Your task to perform on an android device: turn on javascript in the chrome app Image 0: 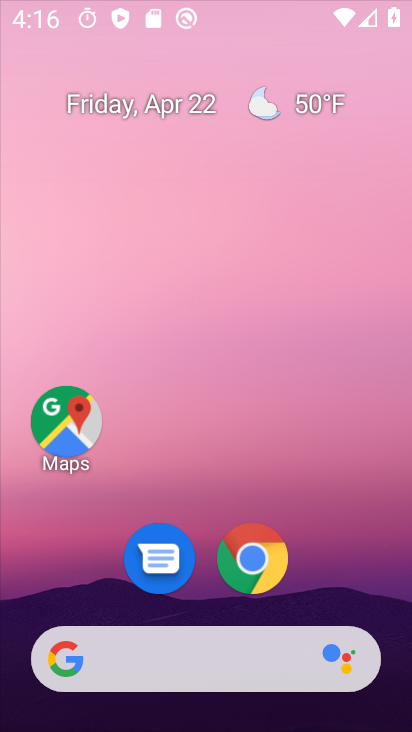
Step 0: drag from (311, 563) to (243, 168)
Your task to perform on an android device: turn on javascript in the chrome app Image 1: 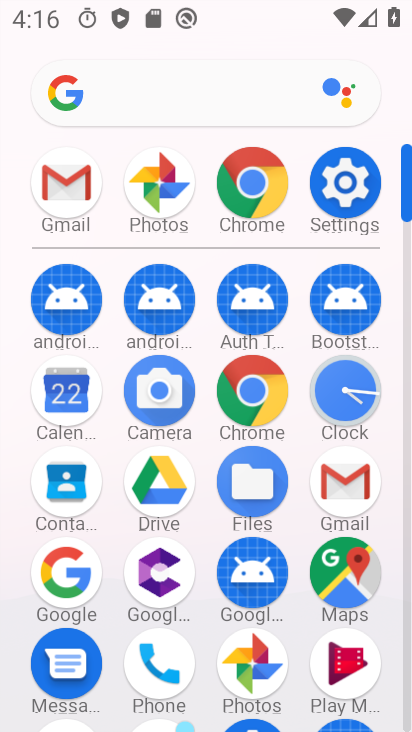
Step 1: drag from (288, 635) to (340, 191)
Your task to perform on an android device: turn on javascript in the chrome app Image 2: 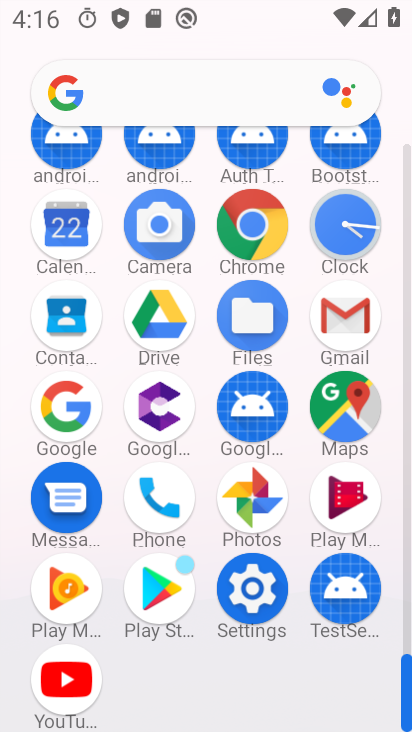
Step 2: click (259, 248)
Your task to perform on an android device: turn on javascript in the chrome app Image 3: 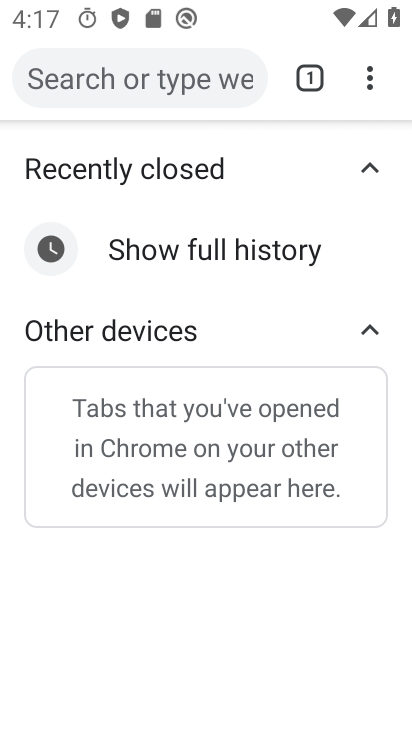
Step 3: click (374, 84)
Your task to perform on an android device: turn on javascript in the chrome app Image 4: 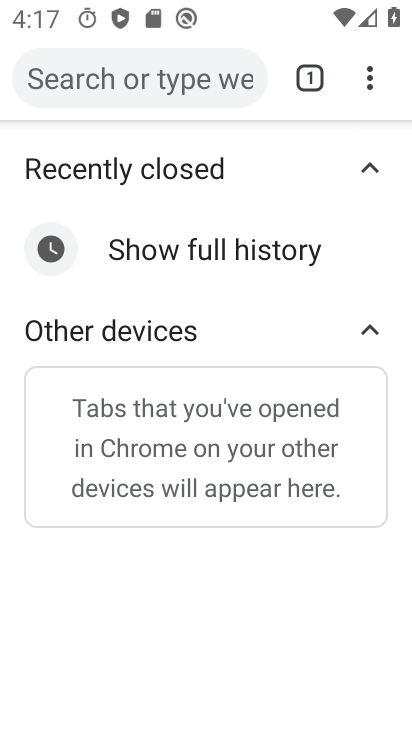
Step 4: click (368, 82)
Your task to perform on an android device: turn on javascript in the chrome app Image 5: 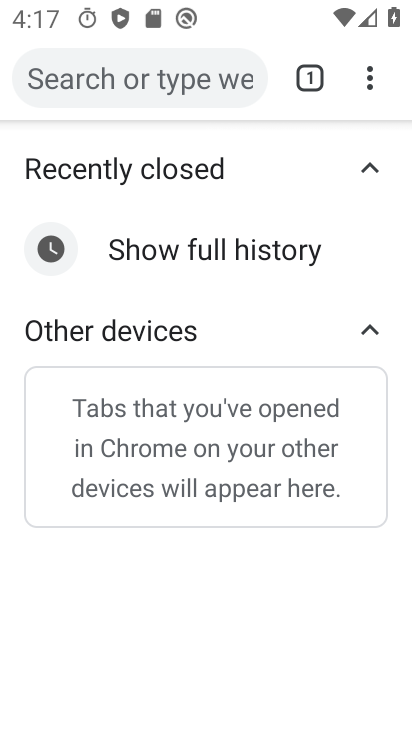
Step 5: click (370, 77)
Your task to perform on an android device: turn on javascript in the chrome app Image 6: 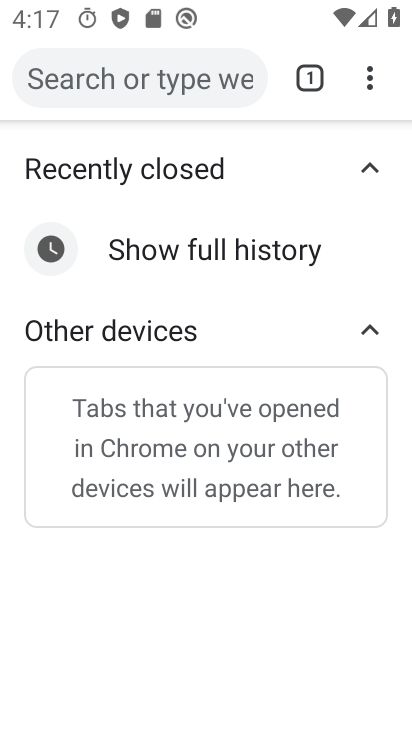
Step 6: click (369, 79)
Your task to perform on an android device: turn on javascript in the chrome app Image 7: 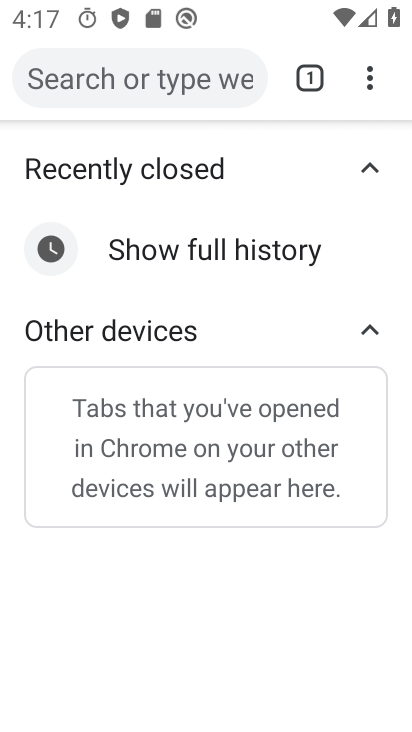
Step 7: click (372, 81)
Your task to perform on an android device: turn on javascript in the chrome app Image 8: 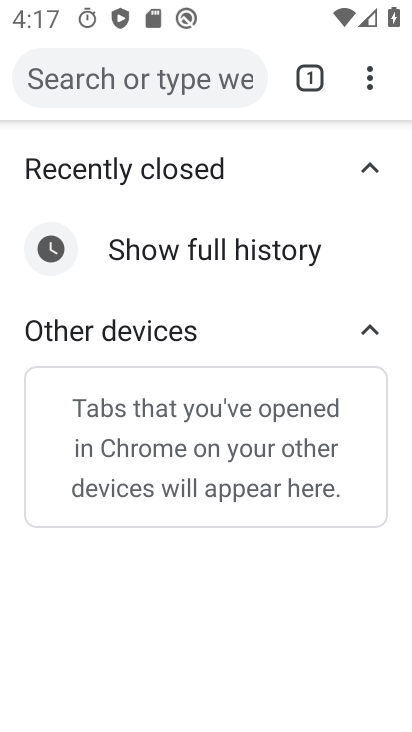
Step 8: click (374, 83)
Your task to perform on an android device: turn on javascript in the chrome app Image 9: 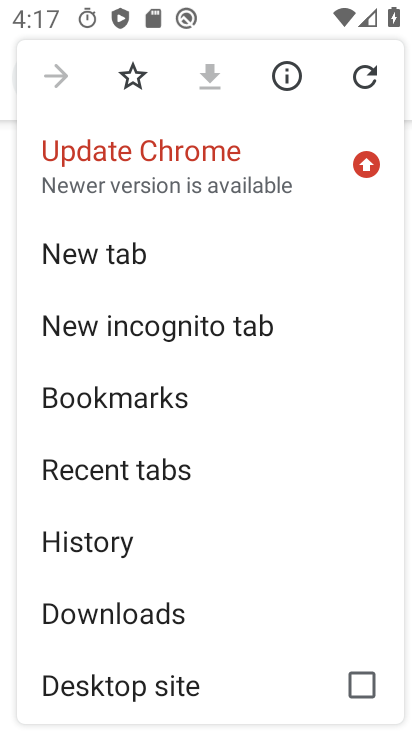
Step 9: drag from (213, 595) to (192, 287)
Your task to perform on an android device: turn on javascript in the chrome app Image 10: 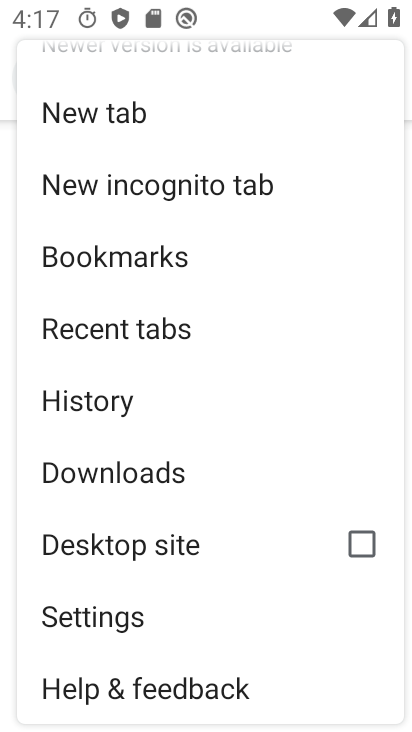
Step 10: click (124, 613)
Your task to perform on an android device: turn on javascript in the chrome app Image 11: 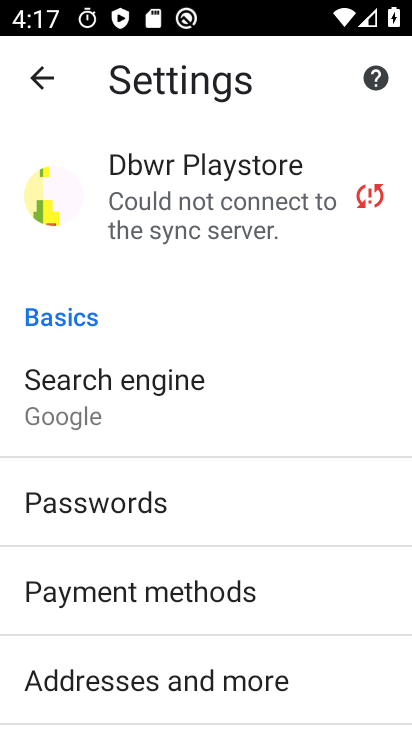
Step 11: drag from (231, 648) to (242, 363)
Your task to perform on an android device: turn on javascript in the chrome app Image 12: 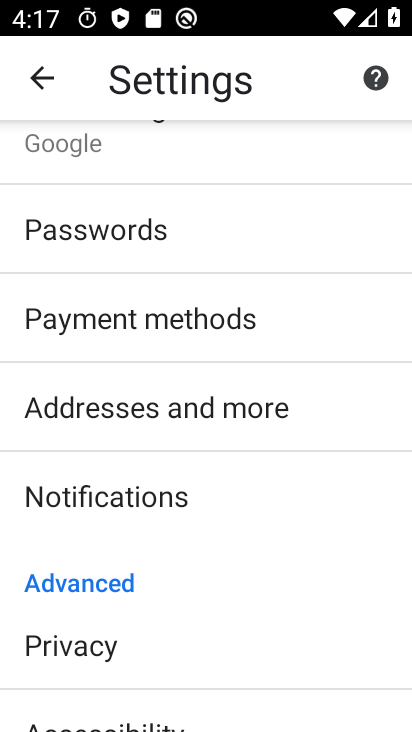
Step 12: drag from (199, 599) to (213, 355)
Your task to perform on an android device: turn on javascript in the chrome app Image 13: 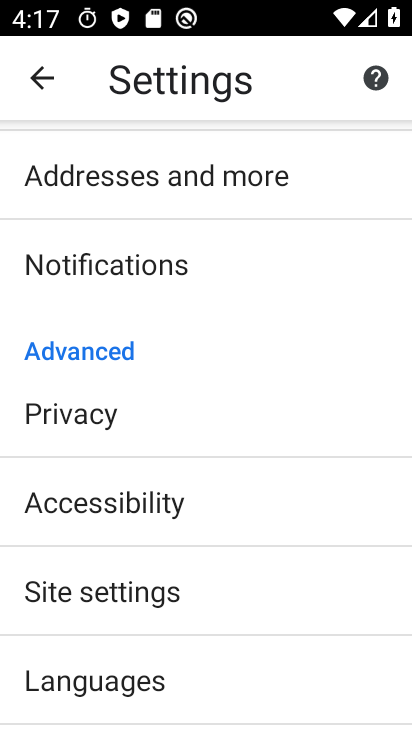
Step 13: drag from (208, 683) to (204, 421)
Your task to perform on an android device: turn on javascript in the chrome app Image 14: 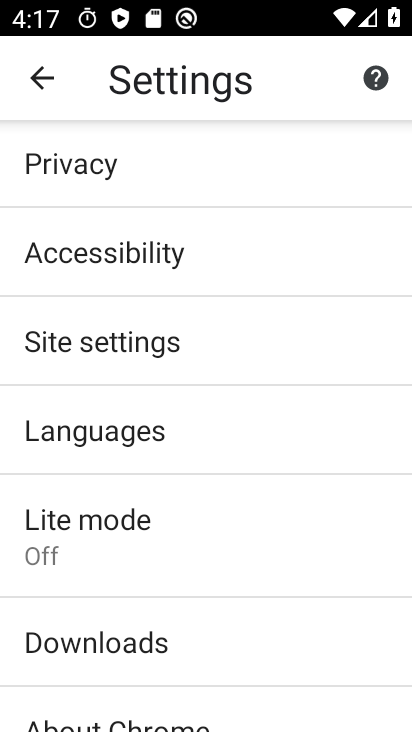
Step 14: click (86, 351)
Your task to perform on an android device: turn on javascript in the chrome app Image 15: 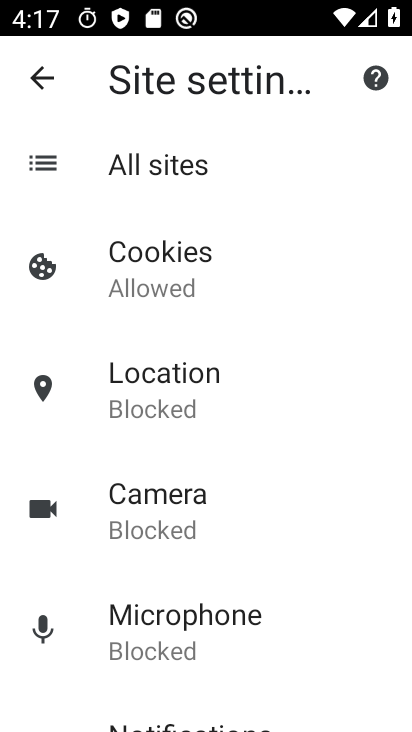
Step 15: drag from (223, 654) to (249, 315)
Your task to perform on an android device: turn on javascript in the chrome app Image 16: 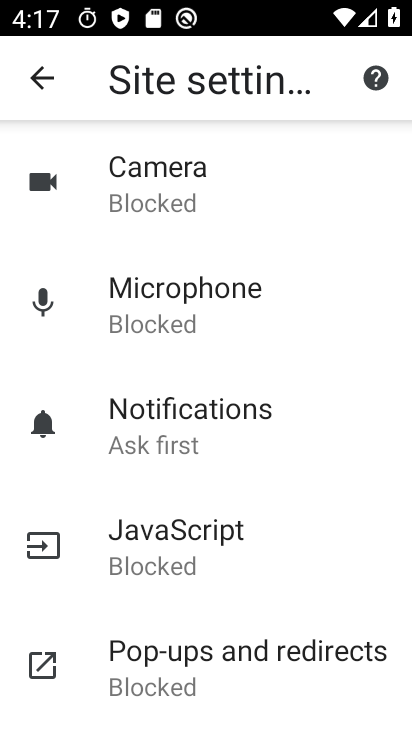
Step 16: drag from (196, 598) to (240, 321)
Your task to perform on an android device: turn on javascript in the chrome app Image 17: 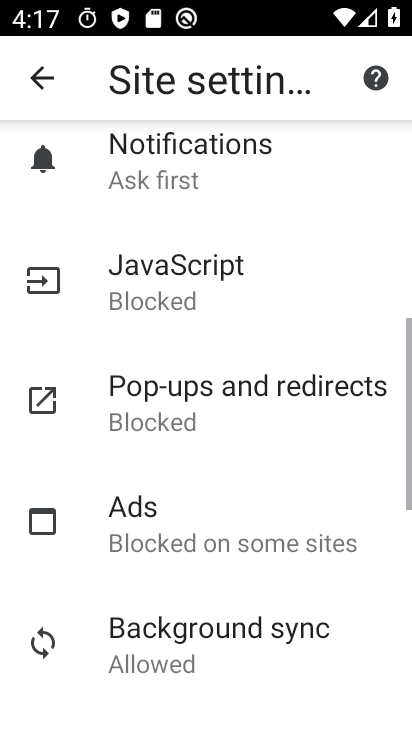
Step 17: drag from (200, 604) to (253, 262)
Your task to perform on an android device: turn on javascript in the chrome app Image 18: 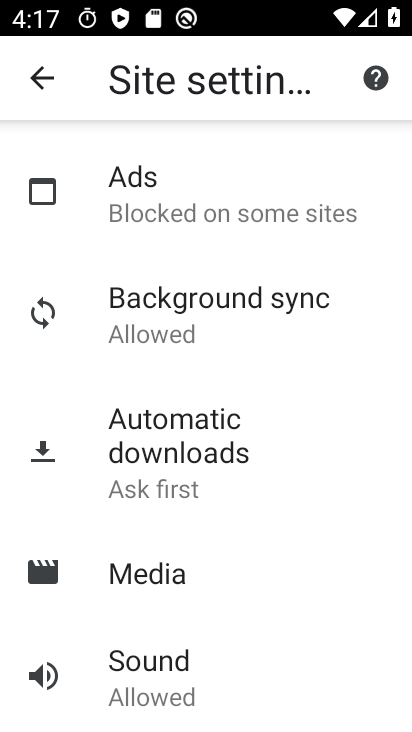
Step 18: drag from (158, 622) to (245, 301)
Your task to perform on an android device: turn on javascript in the chrome app Image 19: 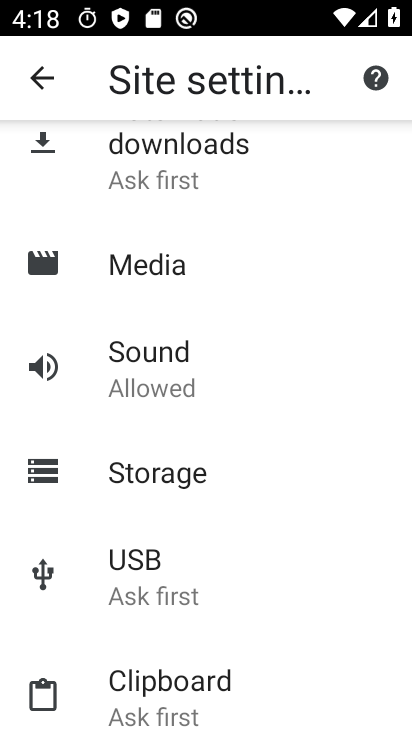
Step 19: drag from (257, 236) to (190, 728)
Your task to perform on an android device: turn on javascript in the chrome app Image 20: 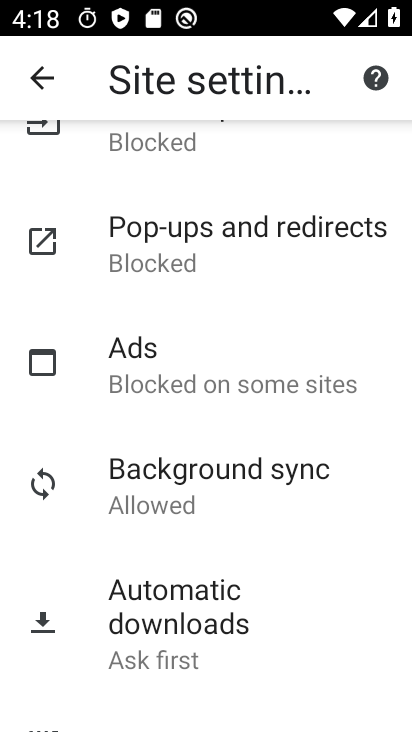
Step 20: drag from (221, 366) to (158, 645)
Your task to perform on an android device: turn on javascript in the chrome app Image 21: 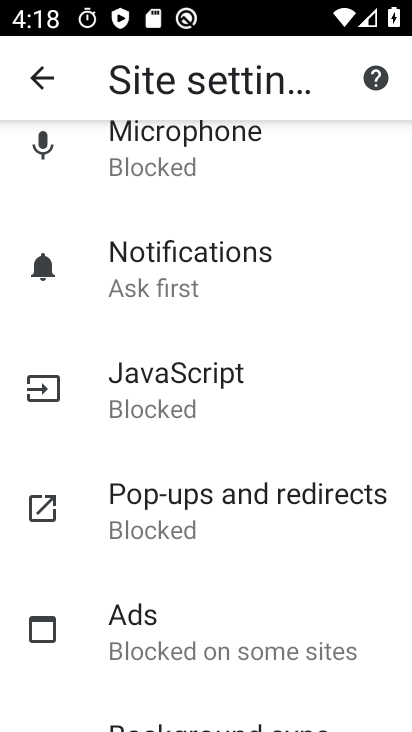
Step 21: click (154, 392)
Your task to perform on an android device: turn on javascript in the chrome app Image 22: 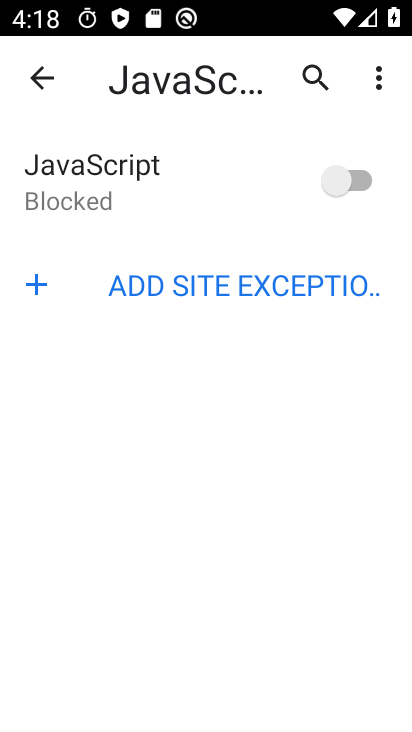
Step 22: click (360, 170)
Your task to perform on an android device: turn on javascript in the chrome app Image 23: 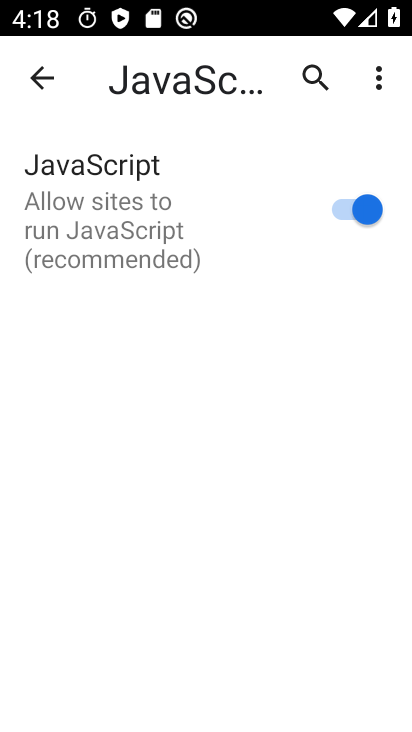
Step 23: task complete